Your task to perform on an android device: What's the weather? Image 0: 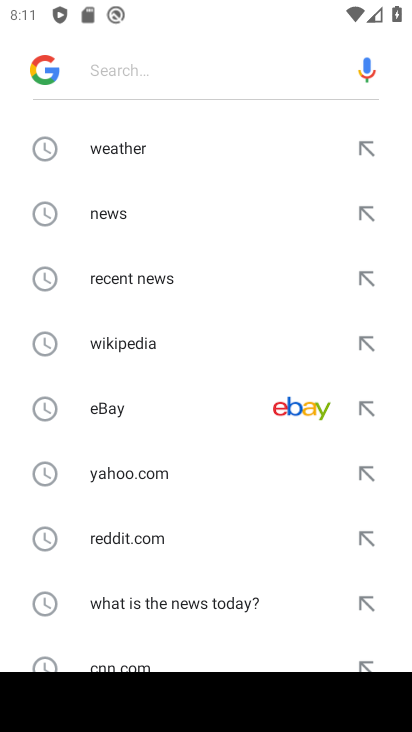
Step 0: press home button
Your task to perform on an android device: What's the weather? Image 1: 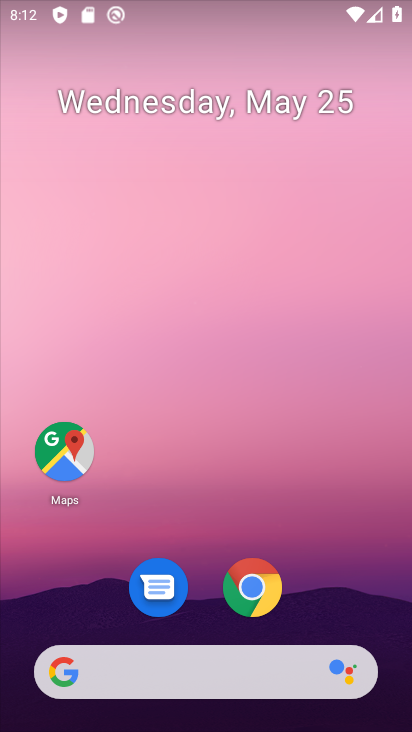
Step 1: drag from (301, 617) to (314, 162)
Your task to perform on an android device: What's the weather? Image 2: 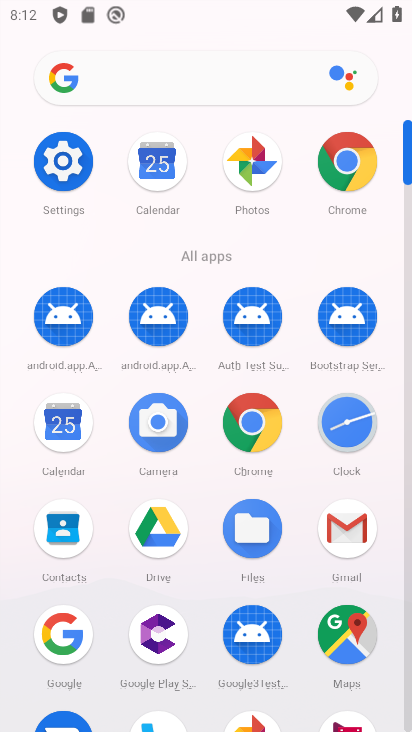
Step 2: click (253, 416)
Your task to perform on an android device: What's the weather? Image 3: 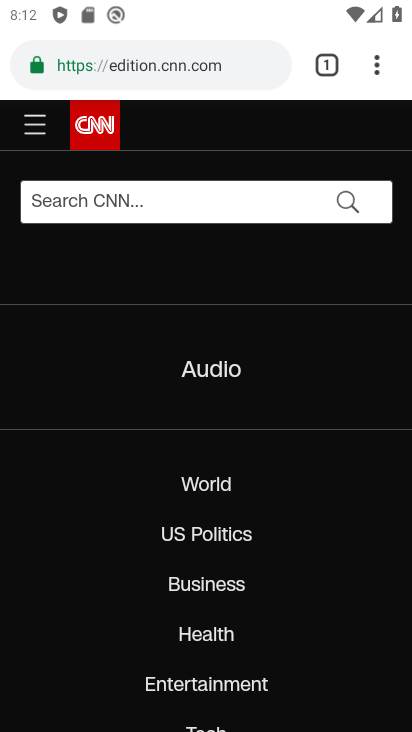
Step 3: click (191, 62)
Your task to perform on an android device: What's the weather? Image 4: 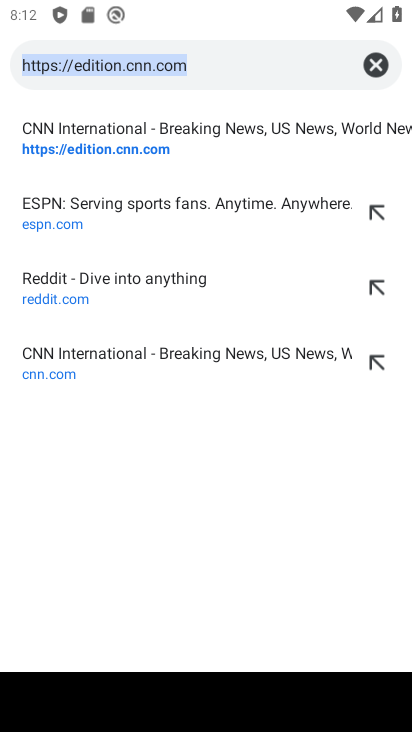
Step 4: click (366, 56)
Your task to perform on an android device: What's the weather? Image 5: 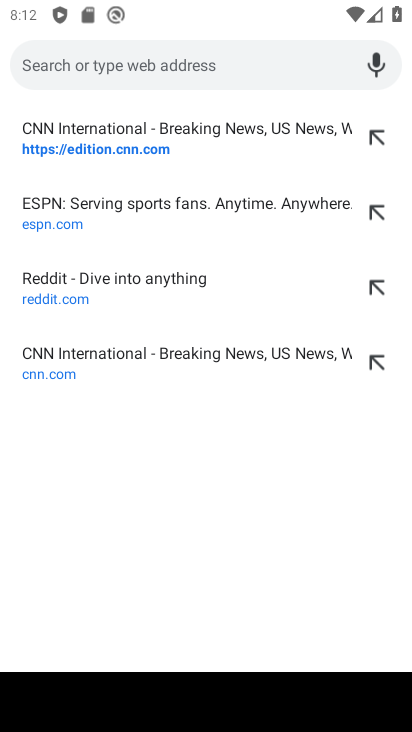
Step 5: type "What's the weather?"
Your task to perform on an android device: What's the weather? Image 6: 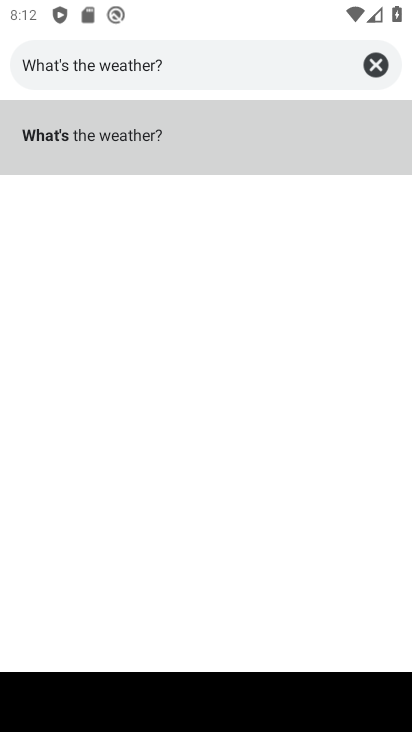
Step 6: click (100, 137)
Your task to perform on an android device: What's the weather? Image 7: 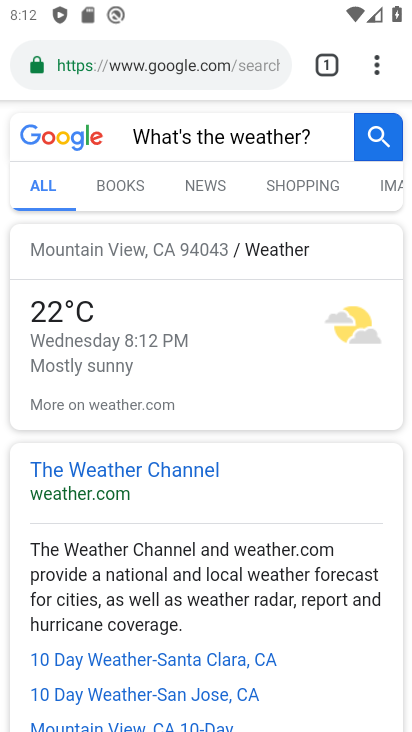
Step 7: task complete